Your task to perform on an android device: turn off notifications in google photos Image 0: 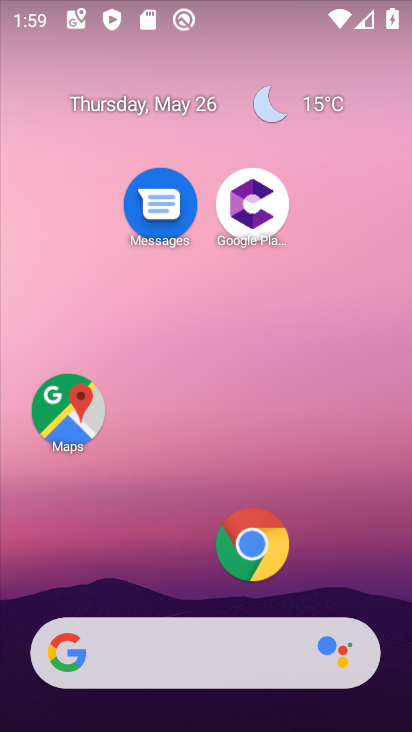
Step 0: drag from (150, 566) to (195, 10)
Your task to perform on an android device: turn off notifications in google photos Image 1: 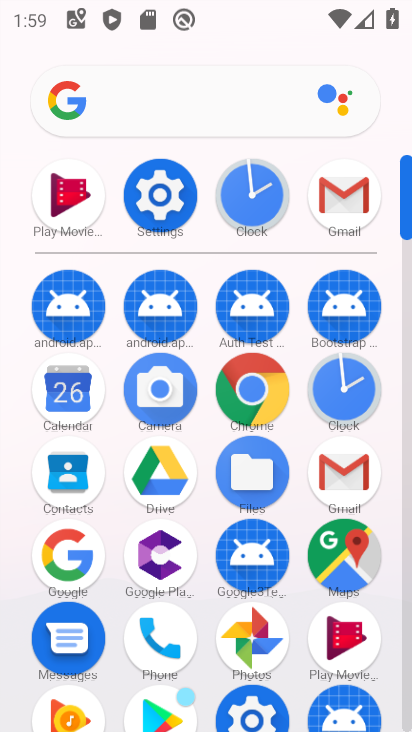
Step 1: click (169, 164)
Your task to perform on an android device: turn off notifications in google photos Image 2: 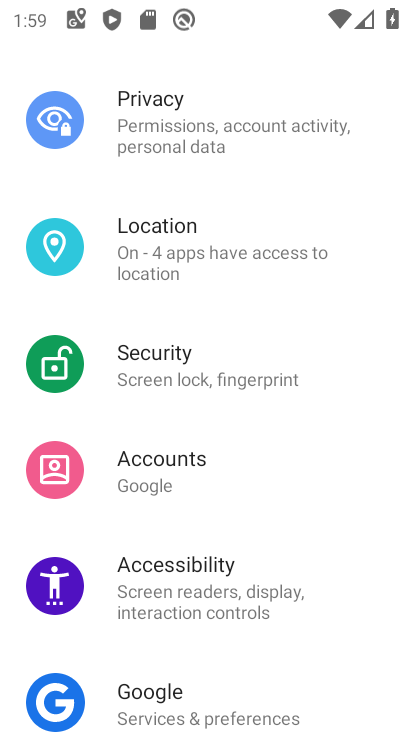
Step 2: drag from (169, 164) to (78, 712)
Your task to perform on an android device: turn off notifications in google photos Image 3: 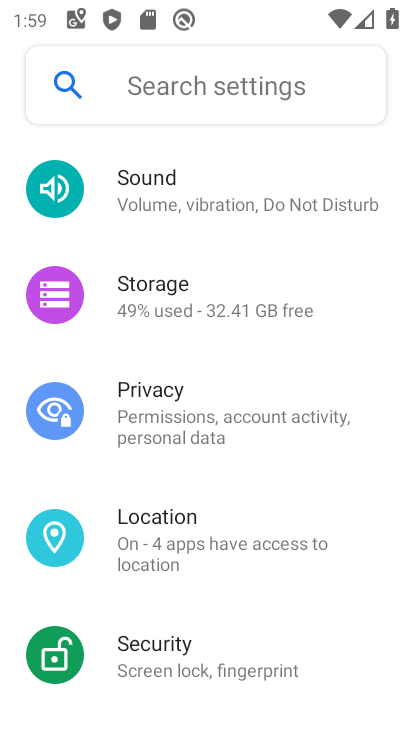
Step 3: drag from (123, 565) to (201, 92)
Your task to perform on an android device: turn off notifications in google photos Image 4: 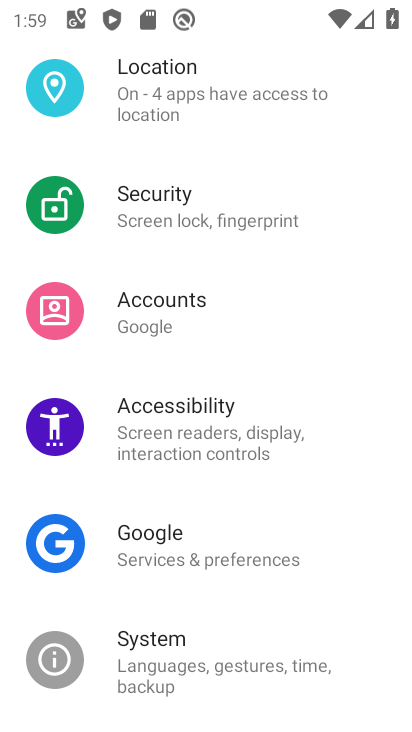
Step 4: drag from (164, 489) to (149, 298)
Your task to perform on an android device: turn off notifications in google photos Image 5: 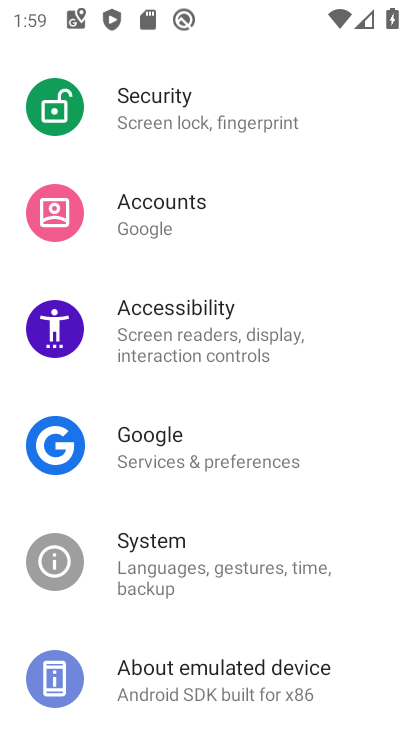
Step 5: drag from (149, 298) to (118, 607)
Your task to perform on an android device: turn off notifications in google photos Image 6: 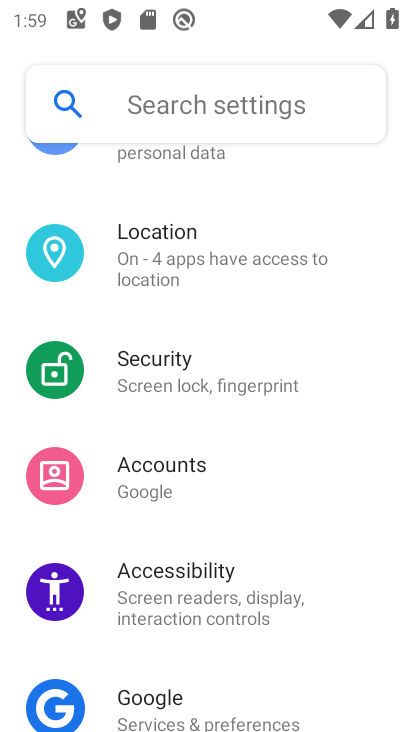
Step 6: drag from (182, 159) to (159, 578)
Your task to perform on an android device: turn off notifications in google photos Image 7: 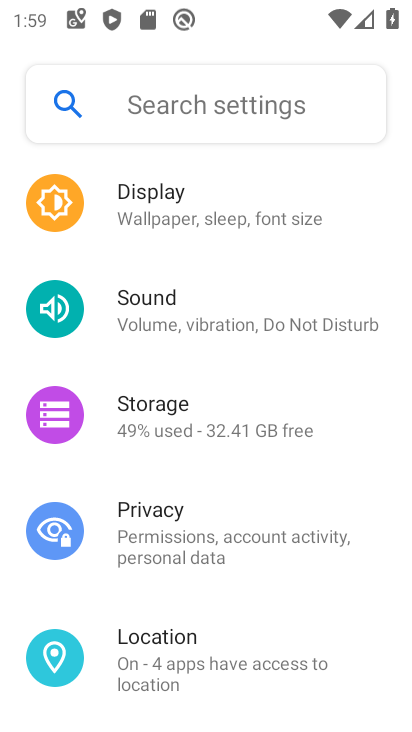
Step 7: drag from (264, 277) to (240, 614)
Your task to perform on an android device: turn off notifications in google photos Image 8: 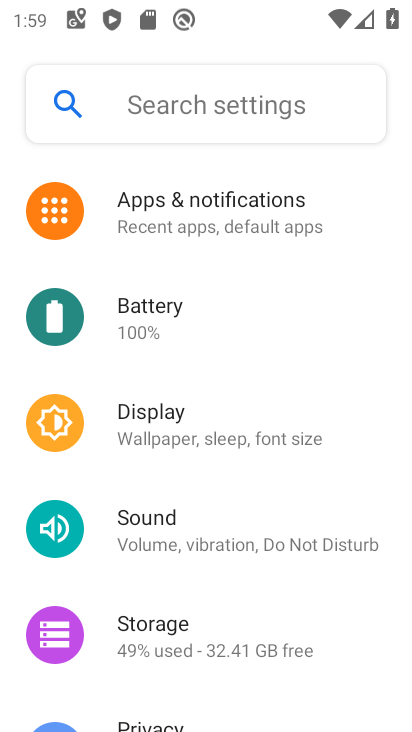
Step 8: click (158, 221)
Your task to perform on an android device: turn off notifications in google photos Image 9: 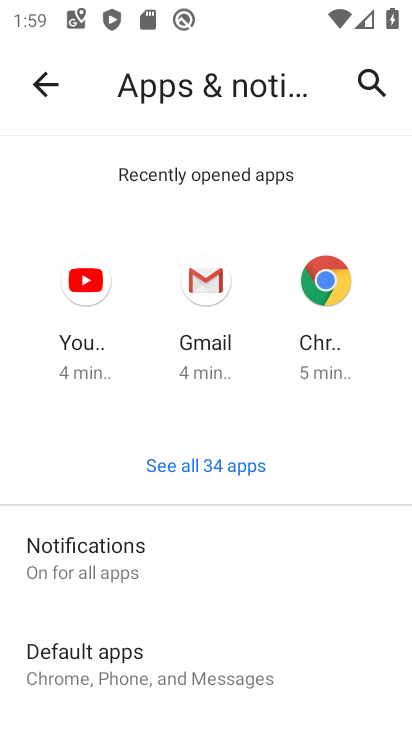
Step 9: click (207, 461)
Your task to perform on an android device: turn off notifications in google photos Image 10: 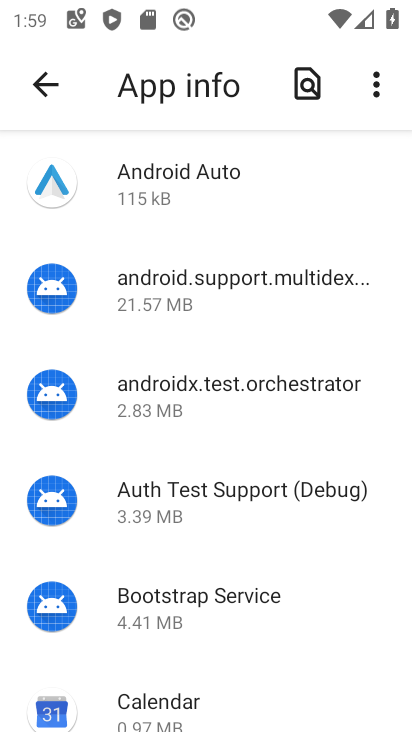
Step 10: drag from (207, 461) to (255, 159)
Your task to perform on an android device: turn off notifications in google photos Image 11: 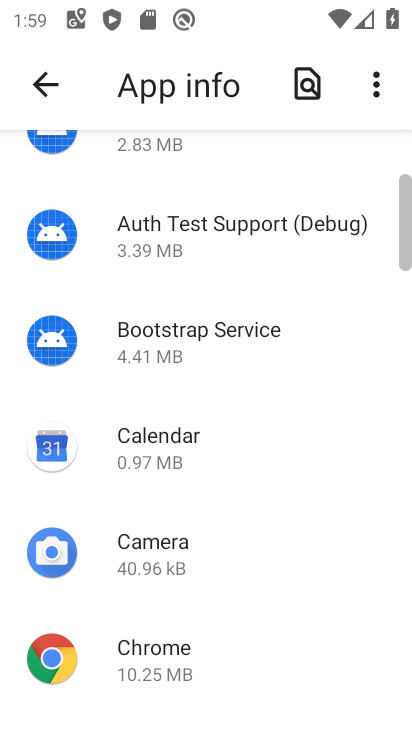
Step 11: drag from (148, 608) to (175, 206)
Your task to perform on an android device: turn off notifications in google photos Image 12: 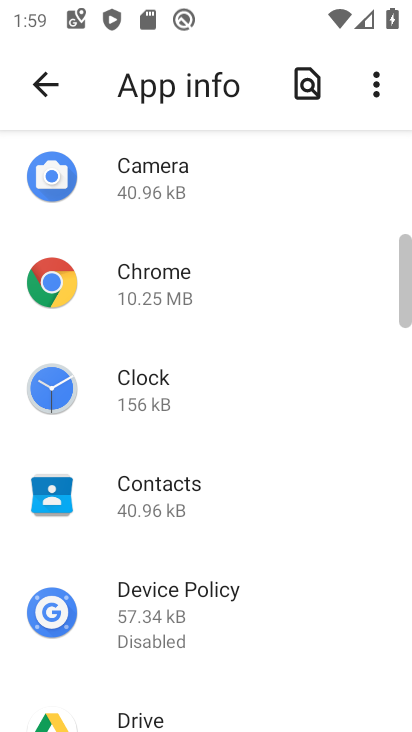
Step 12: drag from (74, 597) to (189, 53)
Your task to perform on an android device: turn off notifications in google photos Image 13: 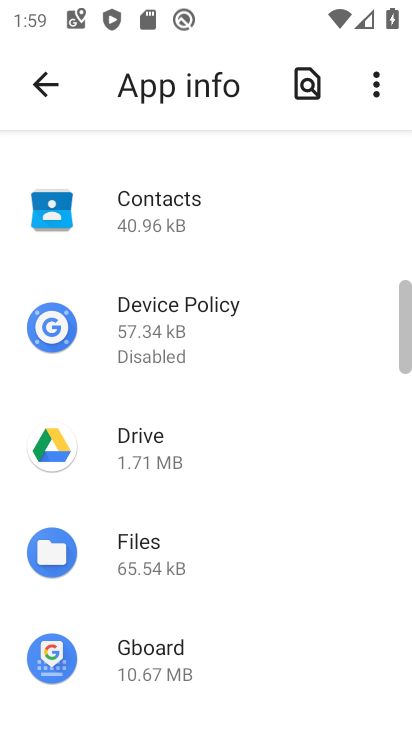
Step 13: drag from (190, 477) to (209, 124)
Your task to perform on an android device: turn off notifications in google photos Image 14: 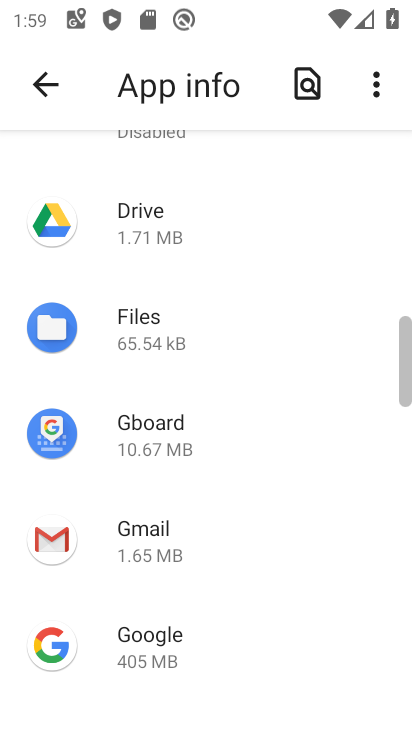
Step 14: drag from (106, 636) to (155, 226)
Your task to perform on an android device: turn off notifications in google photos Image 15: 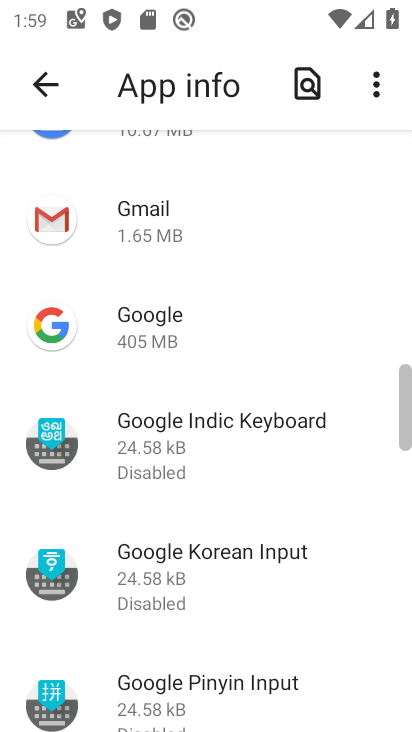
Step 15: drag from (117, 682) to (181, 318)
Your task to perform on an android device: turn off notifications in google photos Image 16: 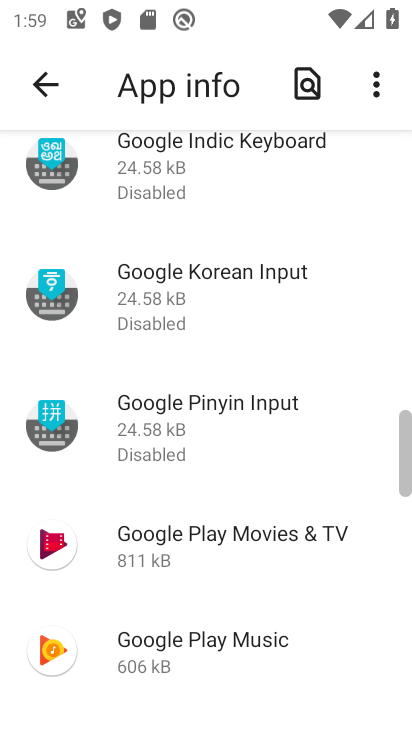
Step 16: drag from (158, 608) to (267, 109)
Your task to perform on an android device: turn off notifications in google photos Image 17: 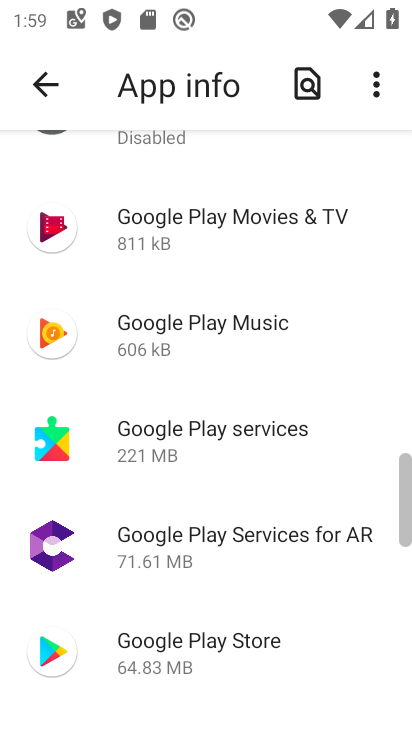
Step 17: drag from (131, 627) to (254, 78)
Your task to perform on an android device: turn off notifications in google photos Image 18: 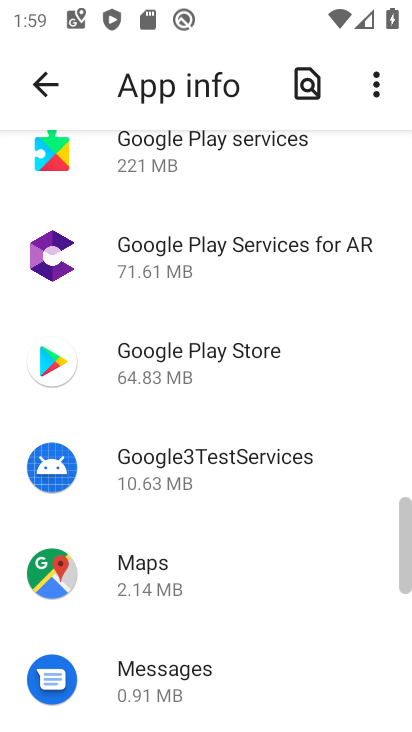
Step 18: drag from (179, 571) to (223, 172)
Your task to perform on an android device: turn off notifications in google photos Image 19: 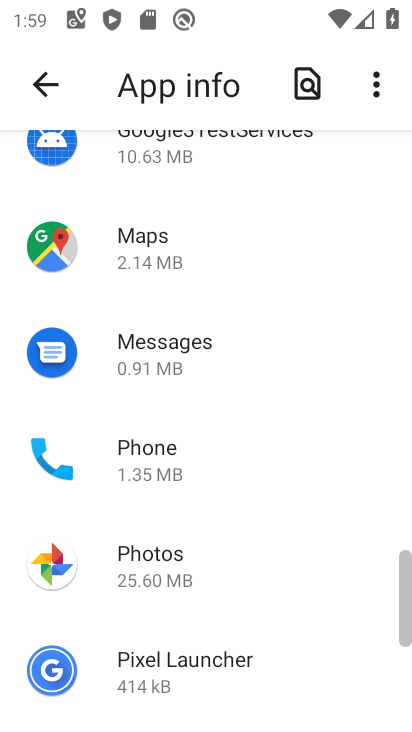
Step 19: drag from (77, 674) to (175, 258)
Your task to perform on an android device: turn off notifications in google photos Image 20: 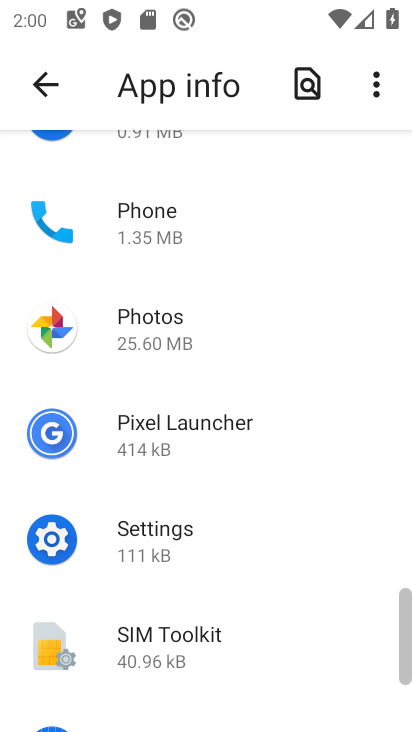
Step 20: click (140, 355)
Your task to perform on an android device: turn off notifications in google photos Image 21: 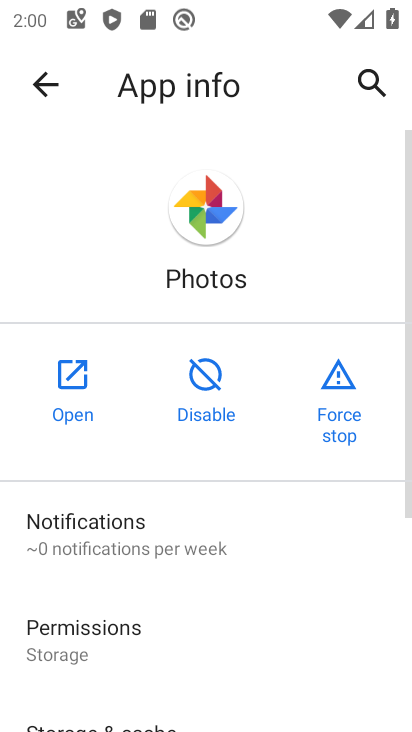
Step 21: click (158, 580)
Your task to perform on an android device: turn off notifications in google photos Image 22: 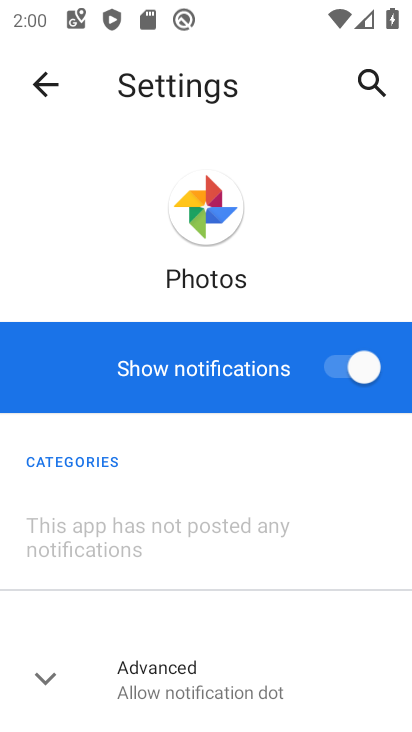
Step 22: click (372, 369)
Your task to perform on an android device: turn off notifications in google photos Image 23: 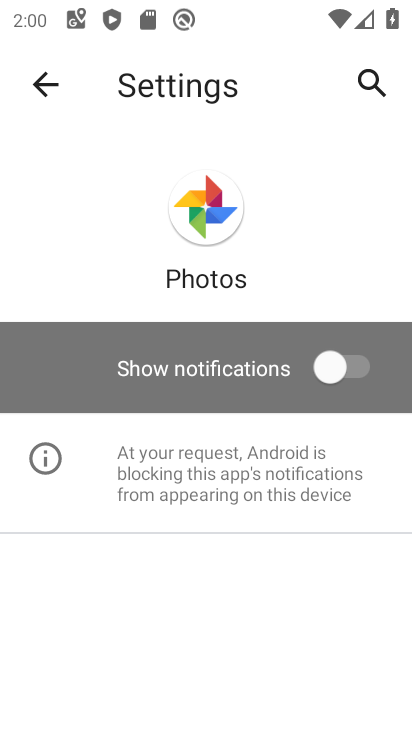
Step 23: task complete